Your task to perform on an android device: Show me popular videos on Youtube Image 0: 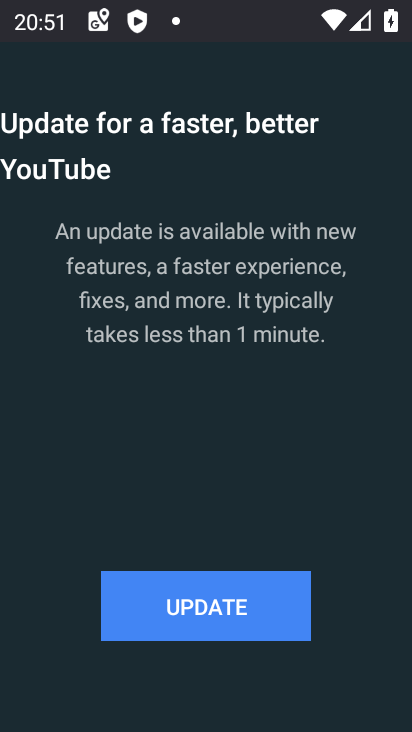
Step 0: task complete